Your task to perform on an android device: find snoozed emails in the gmail app Image 0: 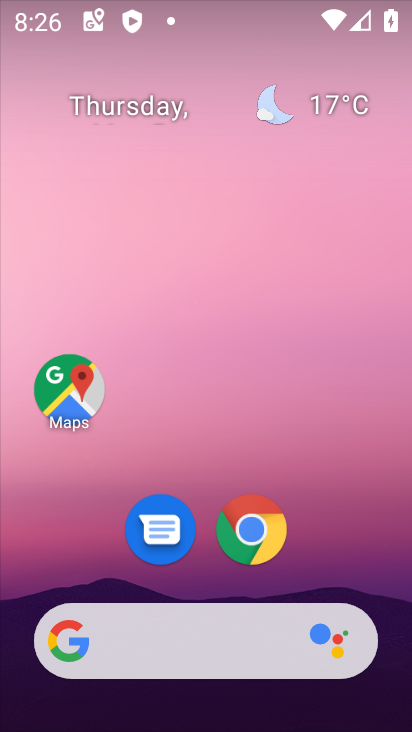
Step 0: drag from (326, 539) to (266, 77)
Your task to perform on an android device: find snoozed emails in the gmail app Image 1: 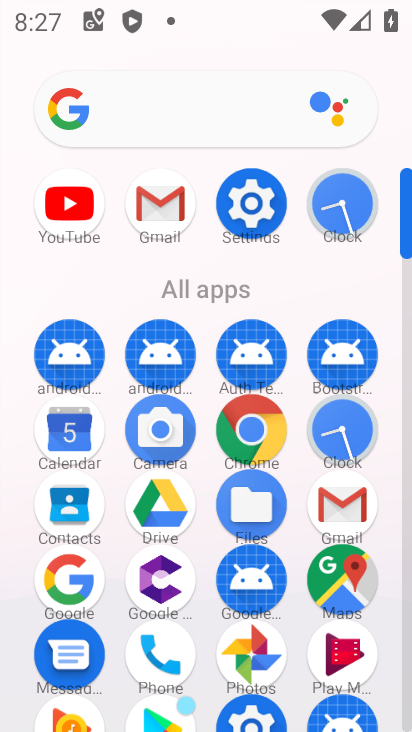
Step 1: click (157, 211)
Your task to perform on an android device: find snoozed emails in the gmail app Image 2: 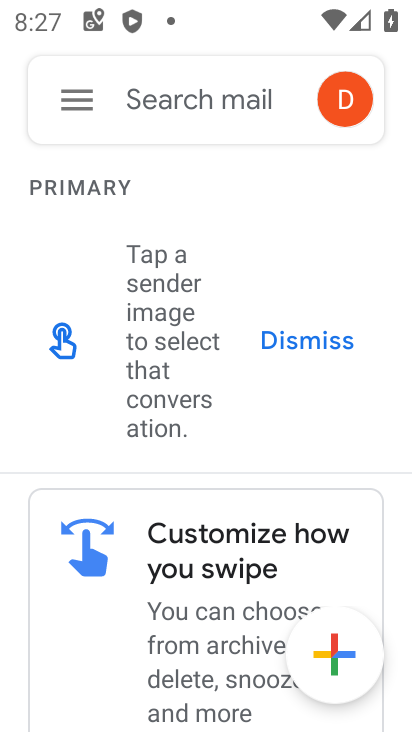
Step 2: click (78, 90)
Your task to perform on an android device: find snoozed emails in the gmail app Image 3: 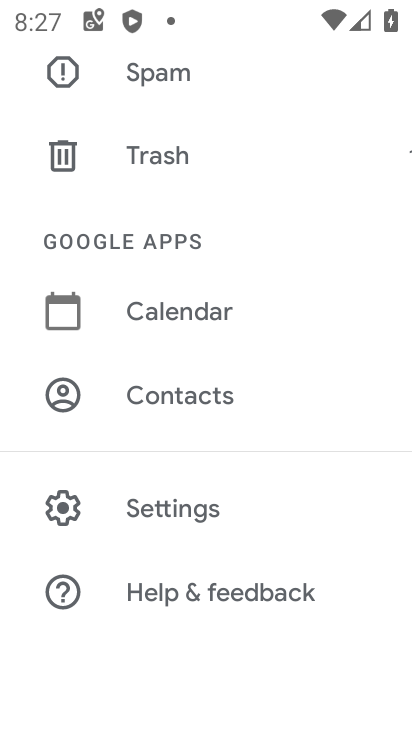
Step 3: drag from (298, 209) to (353, 597)
Your task to perform on an android device: find snoozed emails in the gmail app Image 4: 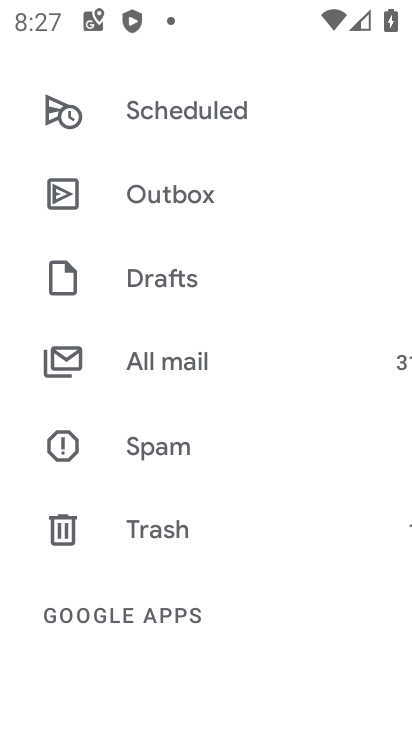
Step 4: drag from (307, 227) to (409, 603)
Your task to perform on an android device: find snoozed emails in the gmail app Image 5: 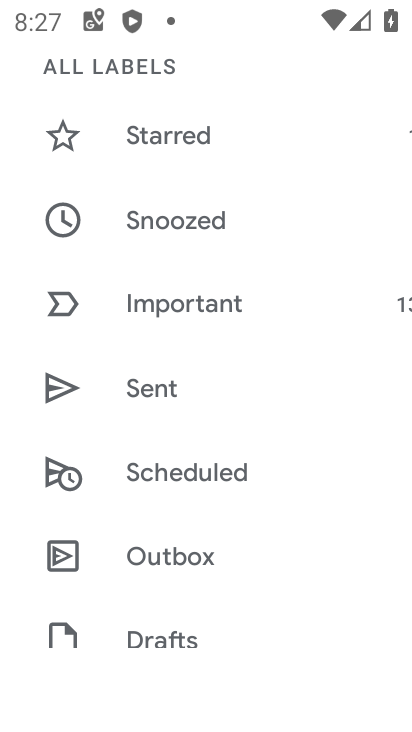
Step 5: click (186, 225)
Your task to perform on an android device: find snoozed emails in the gmail app Image 6: 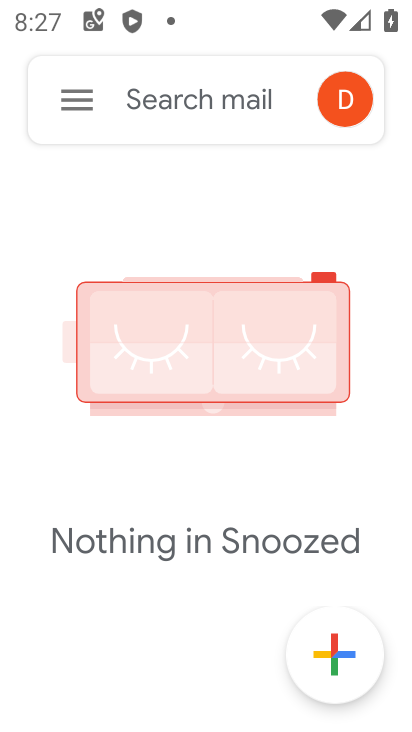
Step 6: task complete